Your task to perform on an android device: turn on the 12-hour format for clock Image 0: 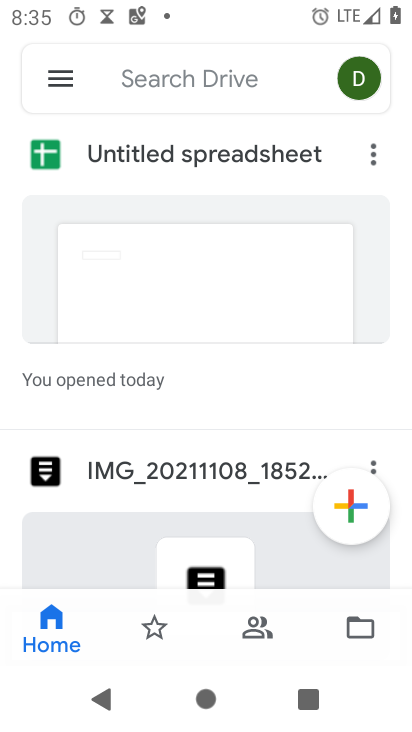
Step 0: press home button
Your task to perform on an android device: turn on the 12-hour format for clock Image 1: 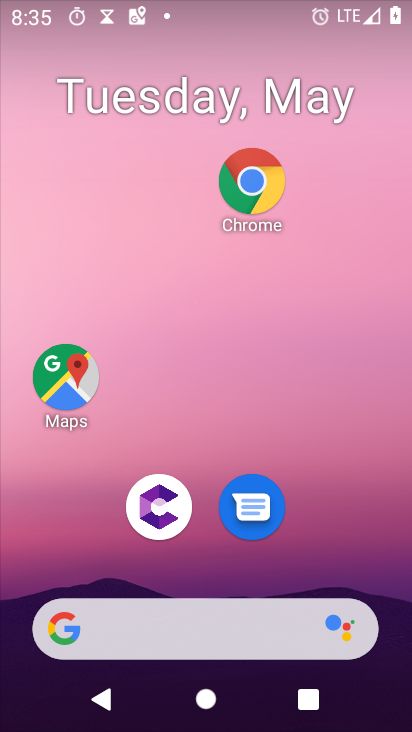
Step 1: drag from (337, 543) to (305, 50)
Your task to perform on an android device: turn on the 12-hour format for clock Image 2: 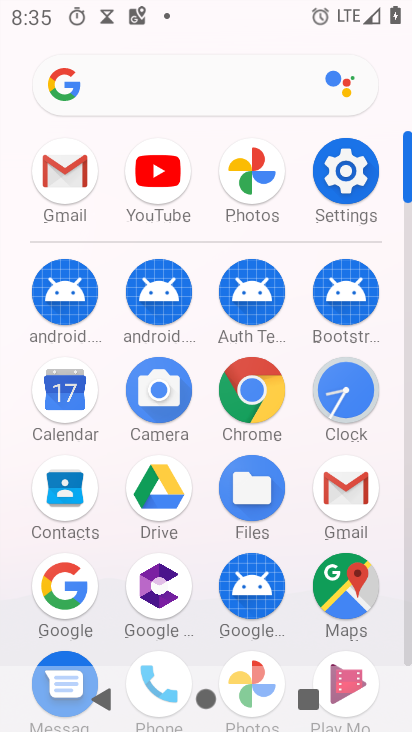
Step 2: click (358, 391)
Your task to perform on an android device: turn on the 12-hour format for clock Image 3: 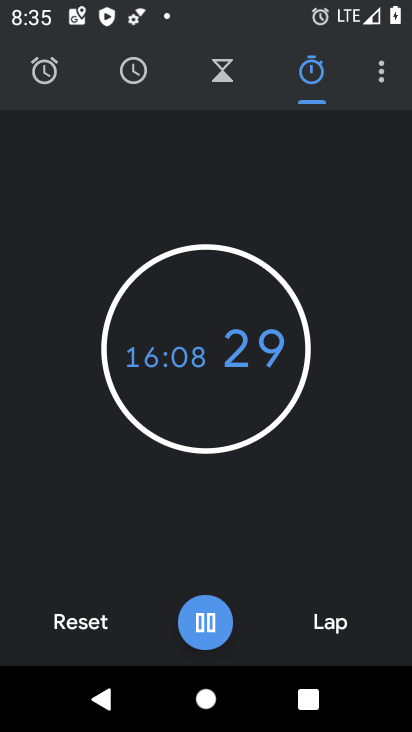
Step 3: click (375, 74)
Your task to perform on an android device: turn on the 12-hour format for clock Image 4: 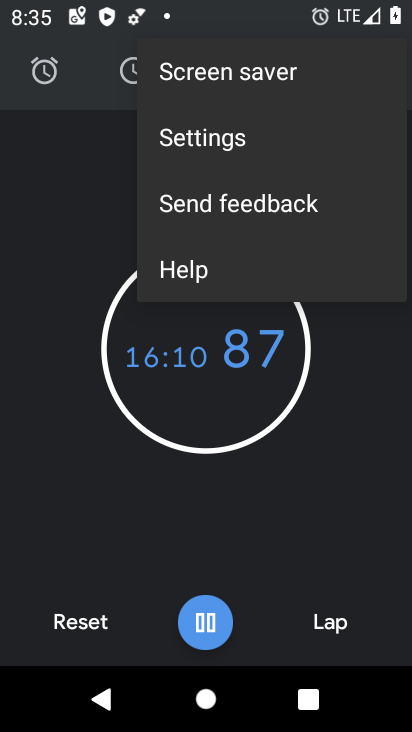
Step 4: click (216, 139)
Your task to perform on an android device: turn on the 12-hour format for clock Image 5: 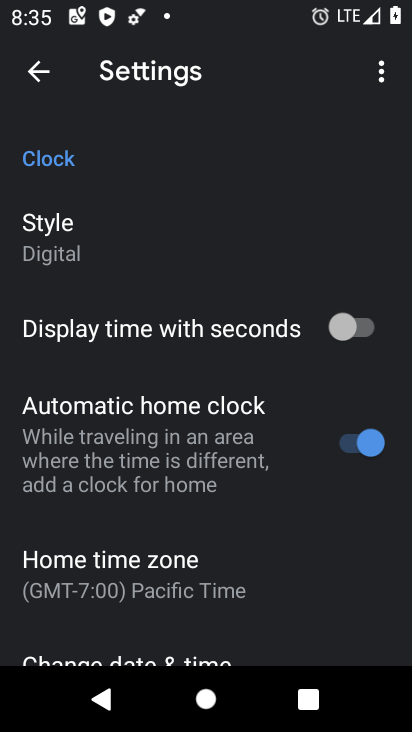
Step 5: drag from (99, 617) to (121, 361)
Your task to perform on an android device: turn on the 12-hour format for clock Image 6: 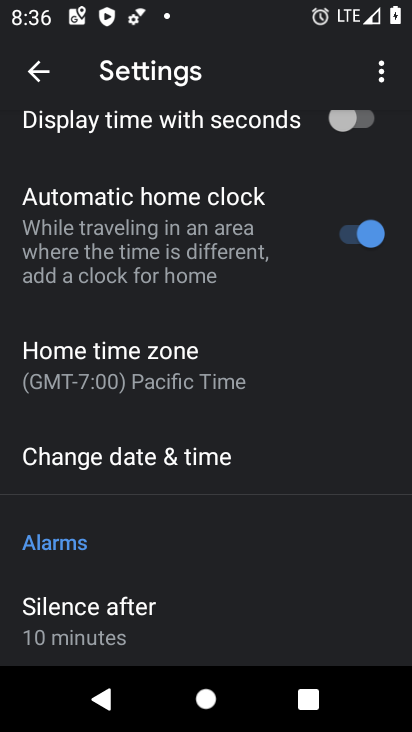
Step 6: click (160, 462)
Your task to perform on an android device: turn on the 12-hour format for clock Image 7: 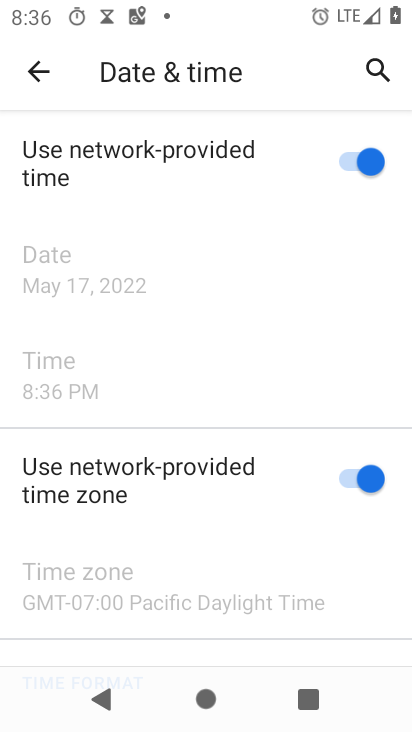
Step 7: task complete